Your task to perform on an android device: Show me productivity apps on the Play Store Image 0: 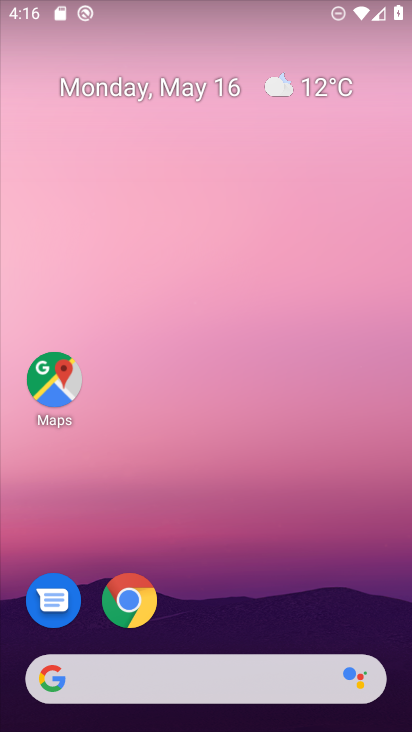
Step 0: drag from (268, 624) to (266, 121)
Your task to perform on an android device: Show me productivity apps on the Play Store Image 1: 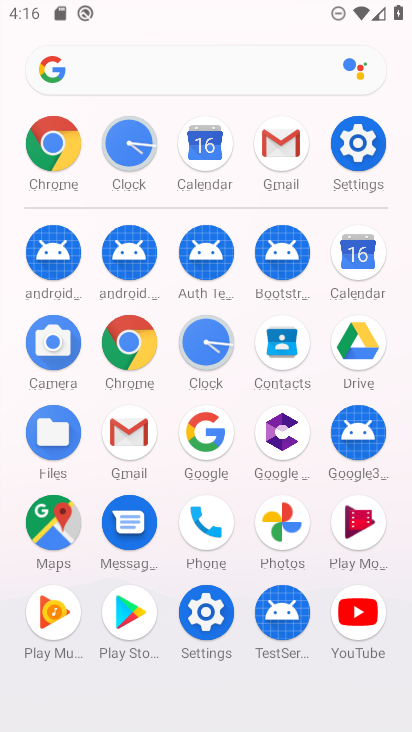
Step 1: click (122, 605)
Your task to perform on an android device: Show me productivity apps on the Play Store Image 2: 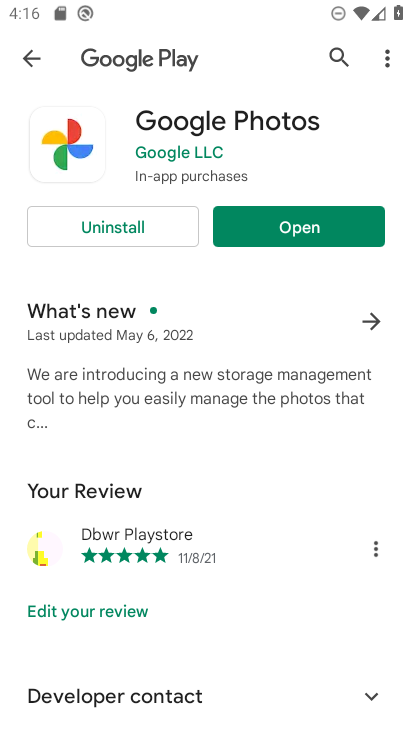
Step 2: click (23, 52)
Your task to perform on an android device: Show me productivity apps on the Play Store Image 3: 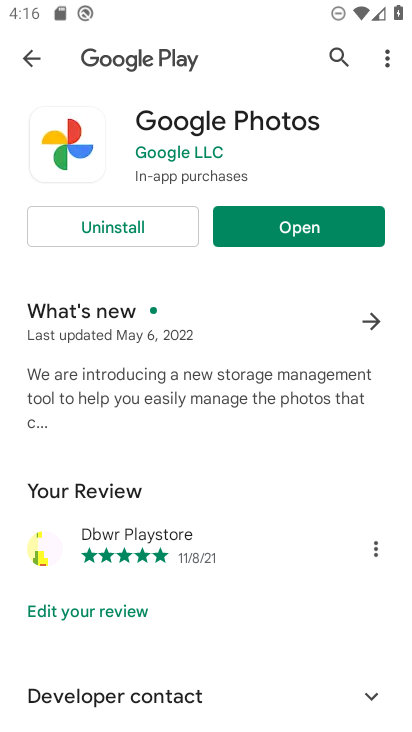
Step 3: click (25, 52)
Your task to perform on an android device: Show me productivity apps on the Play Store Image 4: 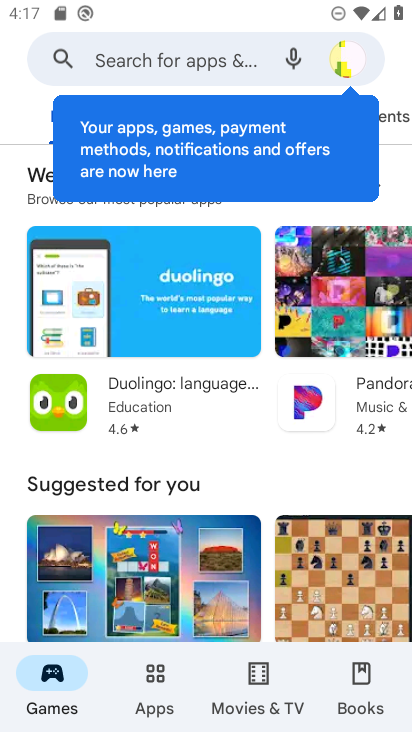
Step 4: click (149, 697)
Your task to perform on an android device: Show me productivity apps on the Play Store Image 5: 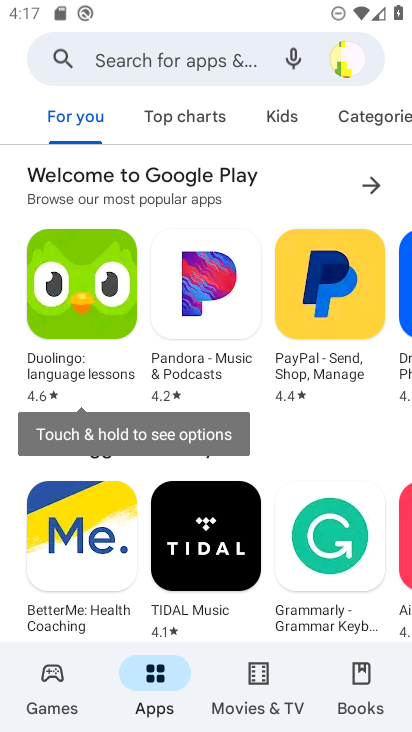
Step 5: task complete